Your task to perform on an android device: Open Chrome and go to settings Image 0: 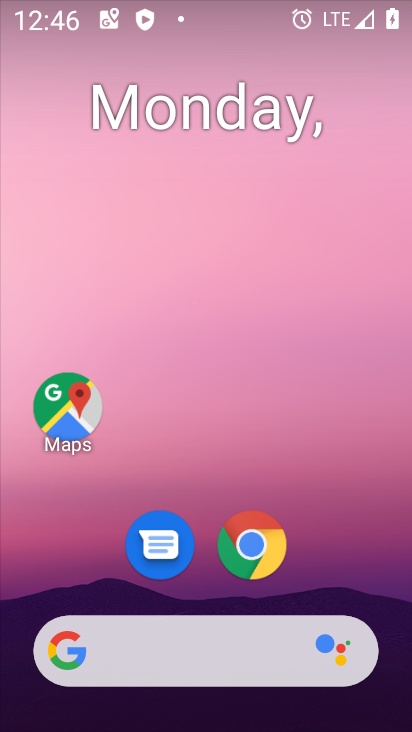
Step 0: drag from (380, 596) to (369, 241)
Your task to perform on an android device: Open Chrome and go to settings Image 1: 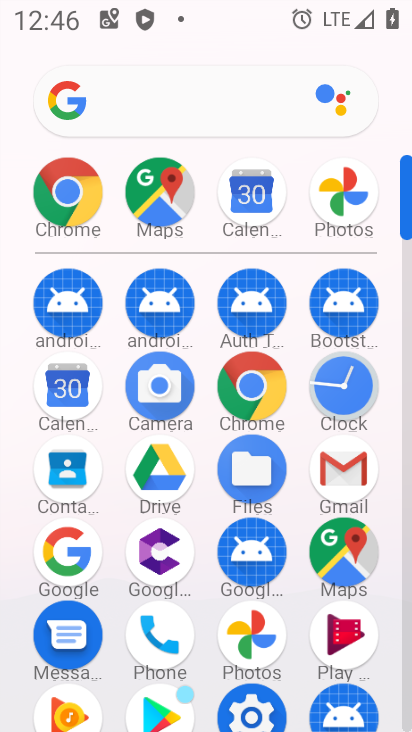
Step 1: click (269, 388)
Your task to perform on an android device: Open Chrome and go to settings Image 2: 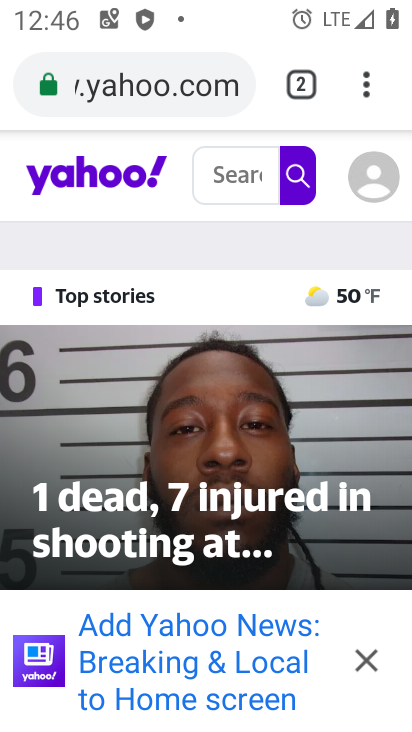
Step 2: click (370, 92)
Your task to perform on an android device: Open Chrome and go to settings Image 3: 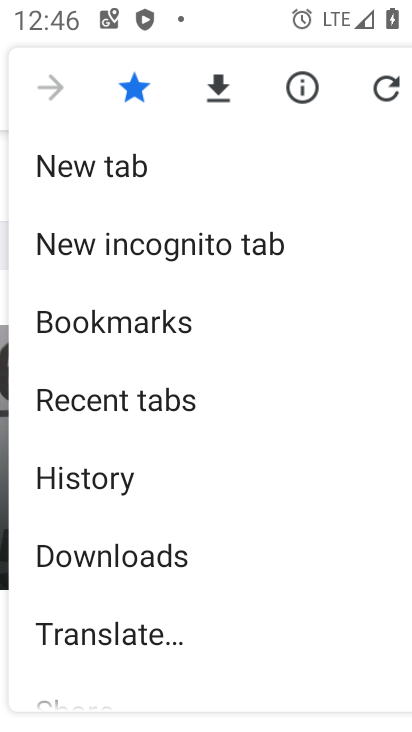
Step 3: drag from (318, 566) to (334, 426)
Your task to perform on an android device: Open Chrome and go to settings Image 4: 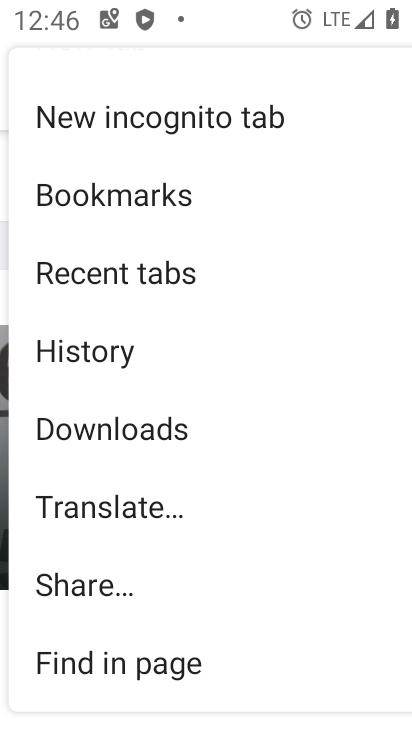
Step 4: drag from (337, 555) to (323, 469)
Your task to perform on an android device: Open Chrome and go to settings Image 5: 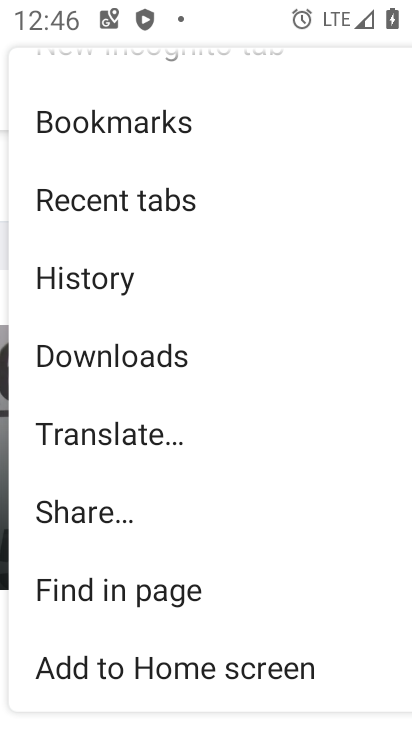
Step 5: drag from (347, 590) to (349, 474)
Your task to perform on an android device: Open Chrome and go to settings Image 6: 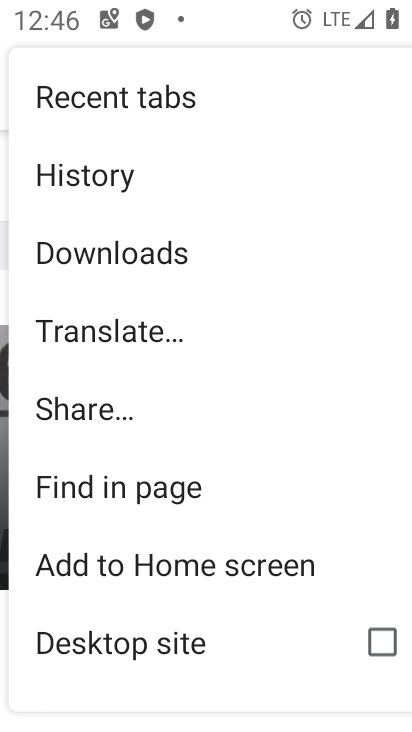
Step 6: drag from (327, 607) to (341, 501)
Your task to perform on an android device: Open Chrome and go to settings Image 7: 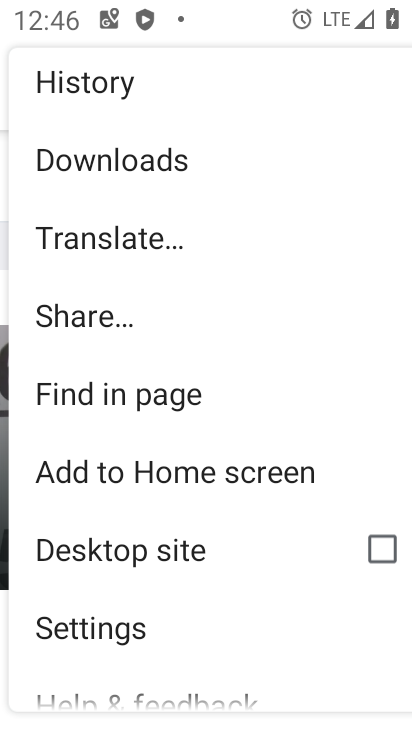
Step 7: drag from (331, 623) to (343, 466)
Your task to perform on an android device: Open Chrome and go to settings Image 8: 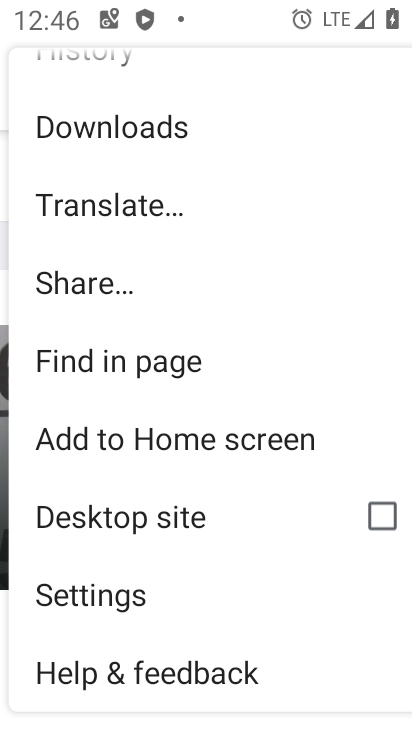
Step 8: click (167, 607)
Your task to perform on an android device: Open Chrome and go to settings Image 9: 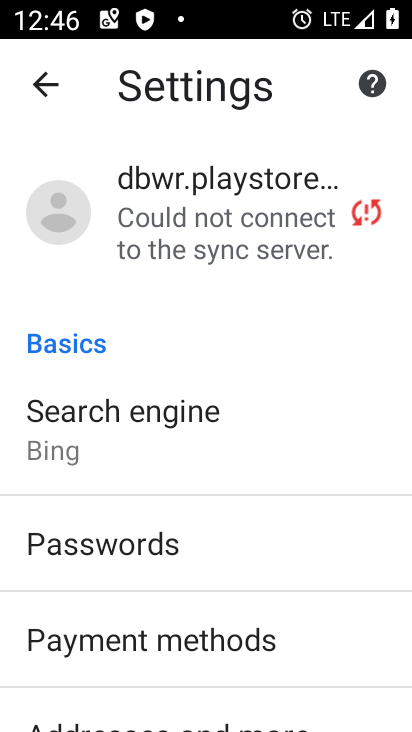
Step 9: task complete